Your task to perform on an android device: open app "Google Chrome" (install if not already installed) Image 0: 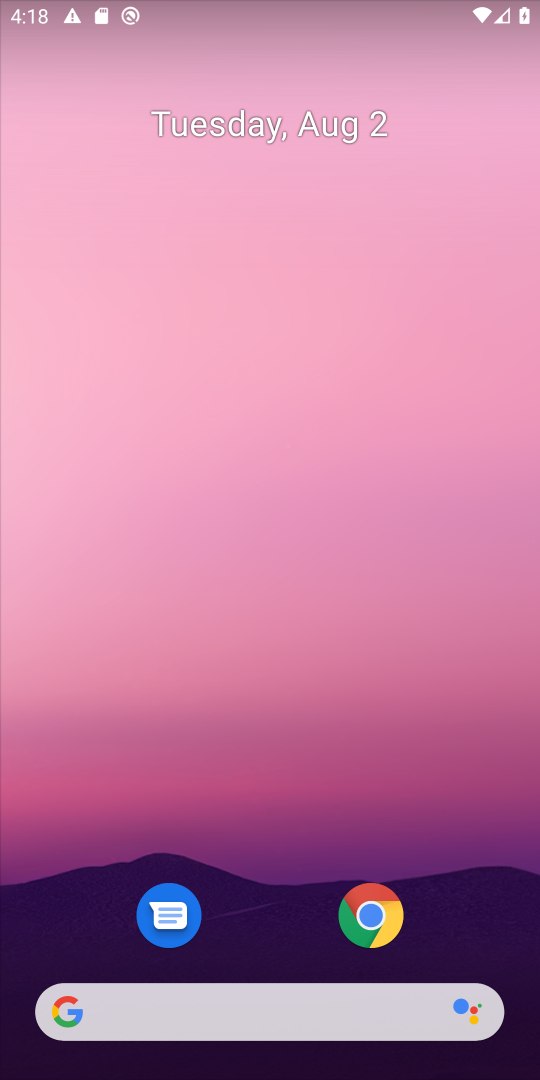
Step 0: drag from (259, 917) to (491, 77)
Your task to perform on an android device: open app "Google Chrome" (install if not already installed) Image 1: 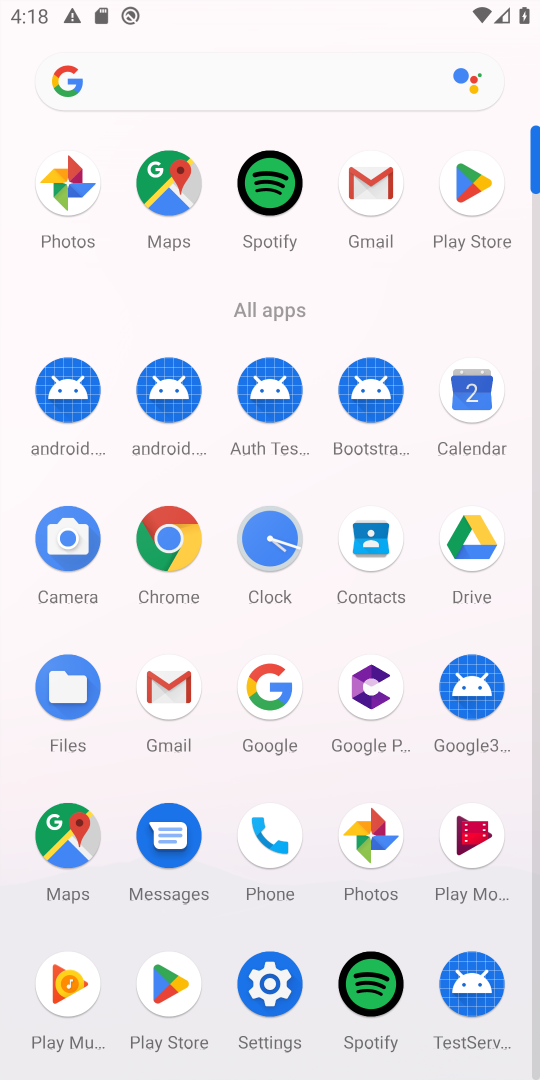
Step 1: click (467, 175)
Your task to perform on an android device: open app "Google Chrome" (install if not already installed) Image 2: 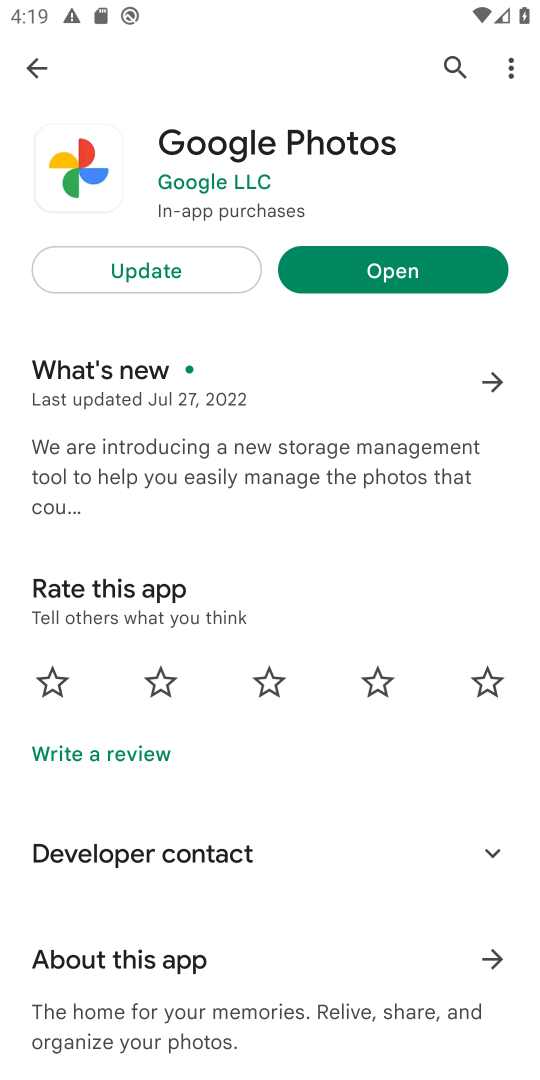
Step 2: click (462, 64)
Your task to perform on an android device: open app "Google Chrome" (install if not already installed) Image 3: 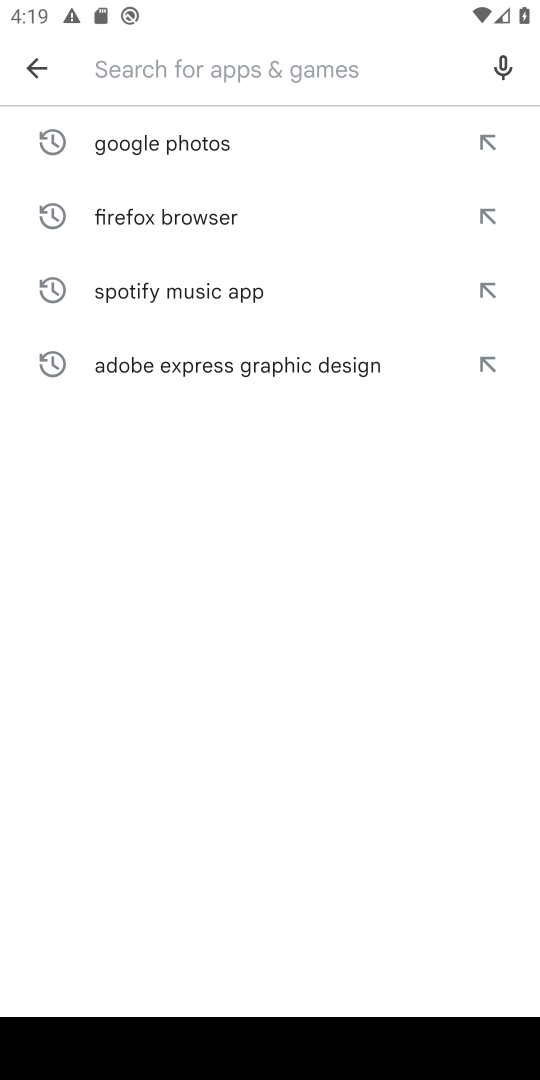
Step 3: type "google chrome"
Your task to perform on an android device: open app "Google Chrome" (install if not already installed) Image 4: 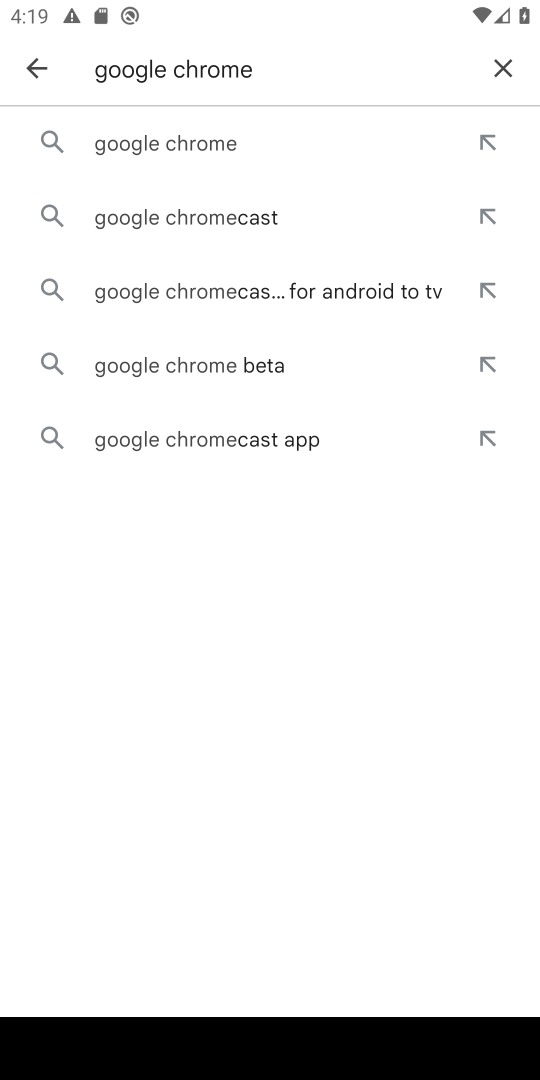
Step 4: click (177, 143)
Your task to perform on an android device: open app "Google Chrome" (install if not already installed) Image 5: 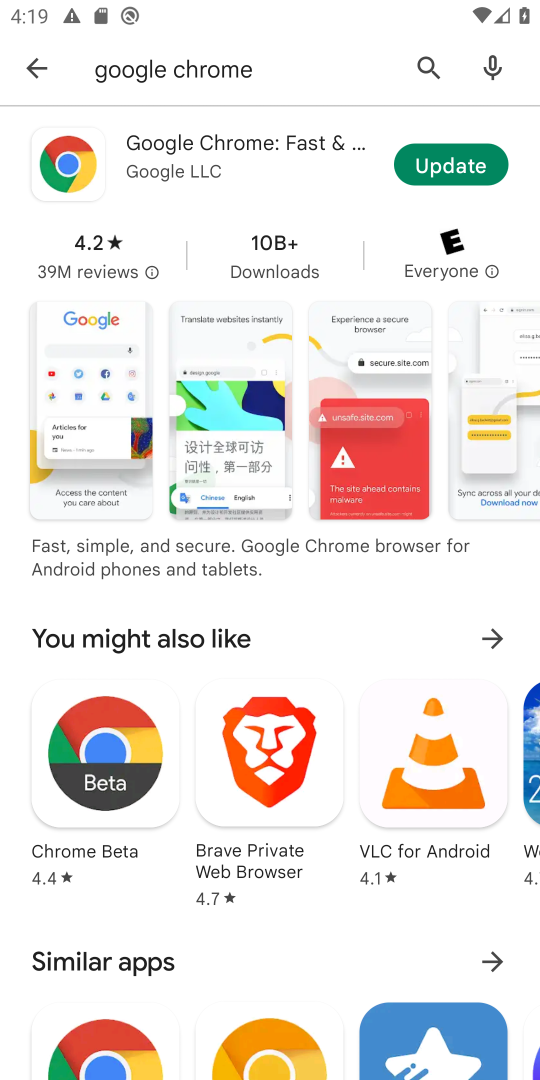
Step 5: click (174, 143)
Your task to perform on an android device: open app "Google Chrome" (install if not already installed) Image 6: 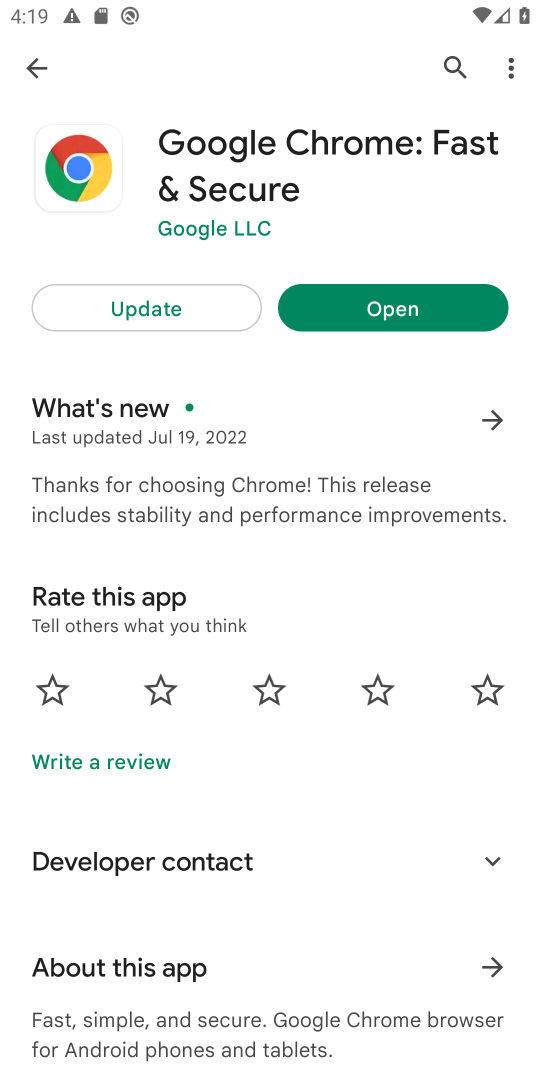
Step 6: click (377, 295)
Your task to perform on an android device: open app "Google Chrome" (install if not already installed) Image 7: 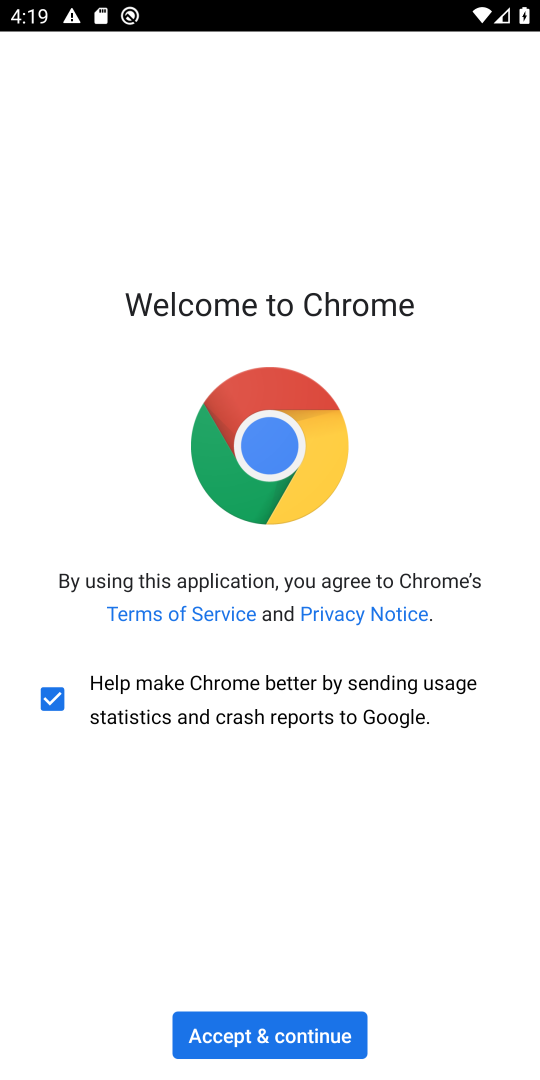
Step 7: task complete